Your task to perform on an android device: Open my contact list Image 0: 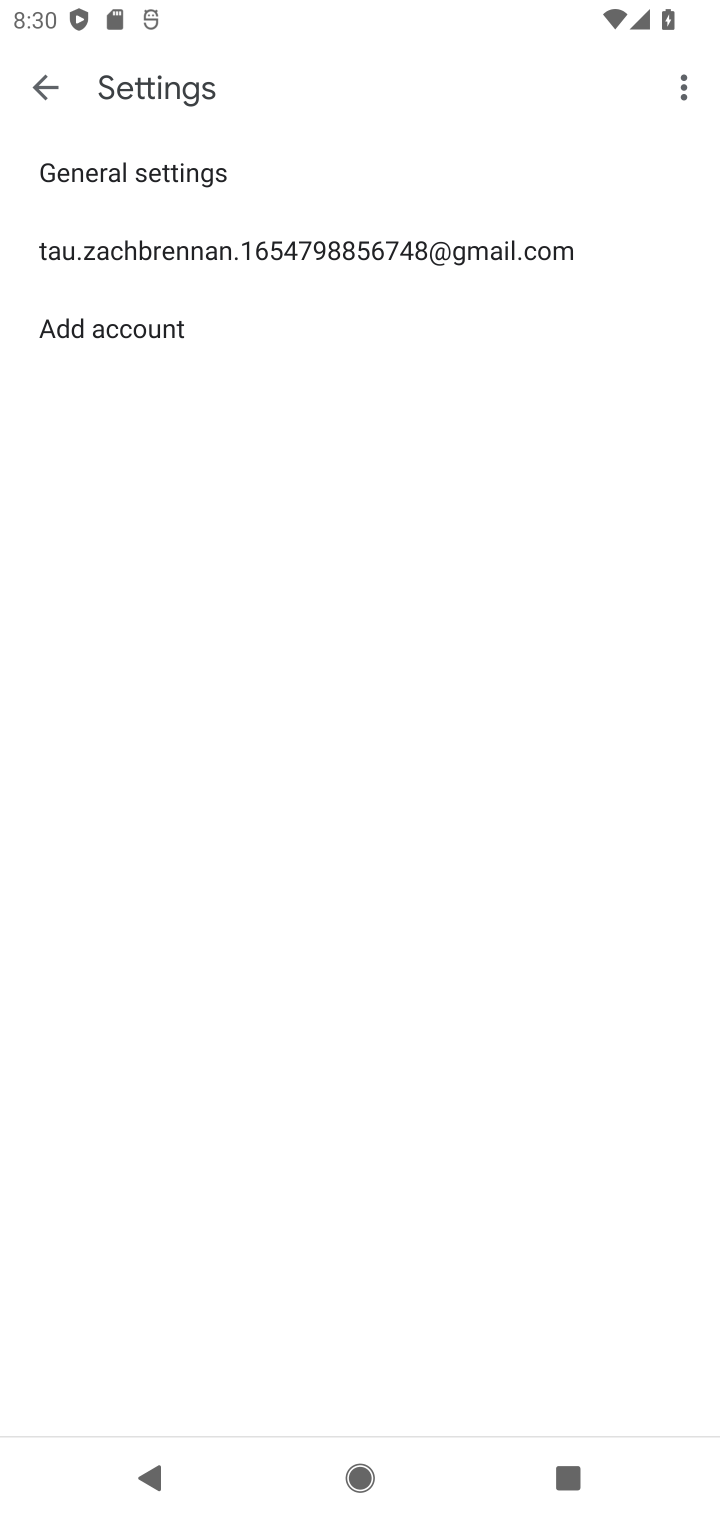
Step 0: drag from (409, 944) to (426, 479)
Your task to perform on an android device: Open my contact list Image 1: 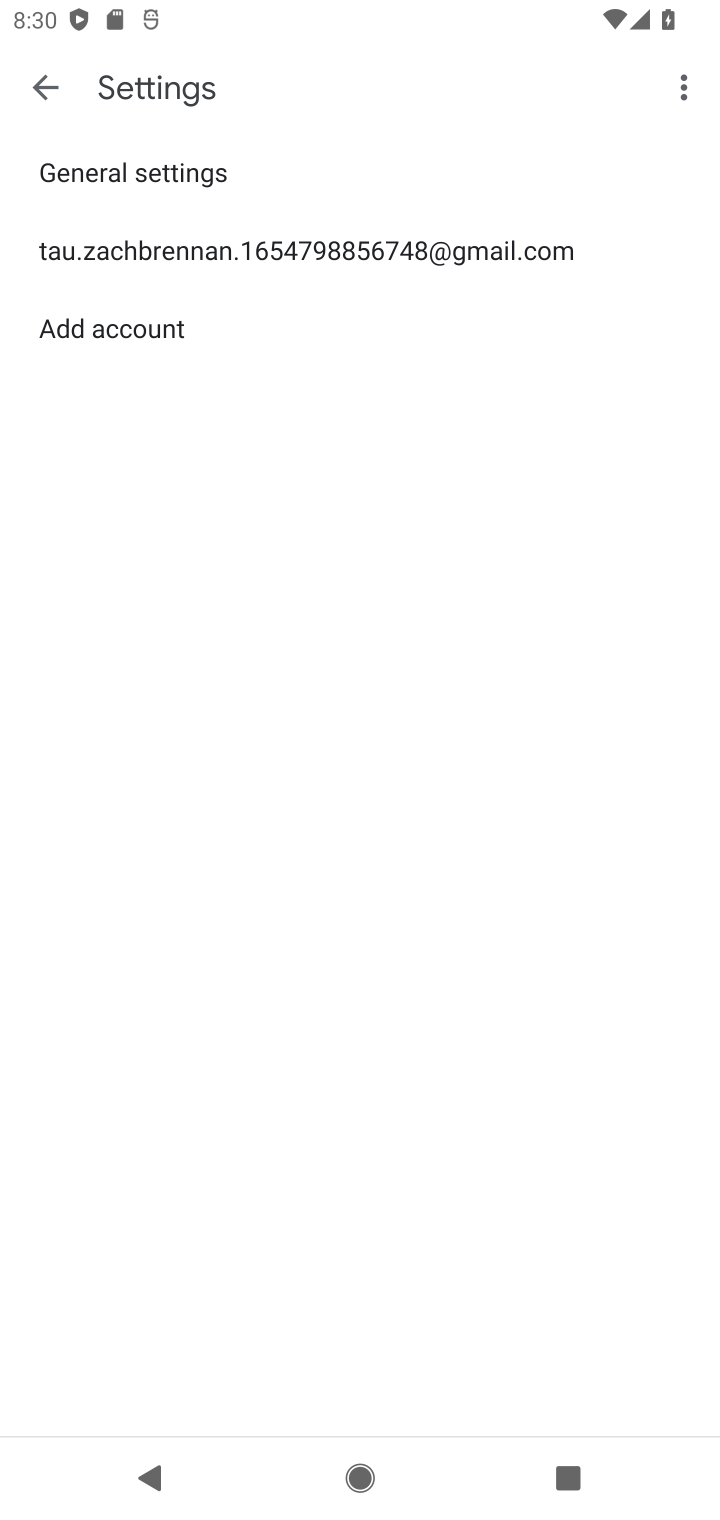
Step 1: drag from (278, 1343) to (297, 1204)
Your task to perform on an android device: Open my contact list Image 2: 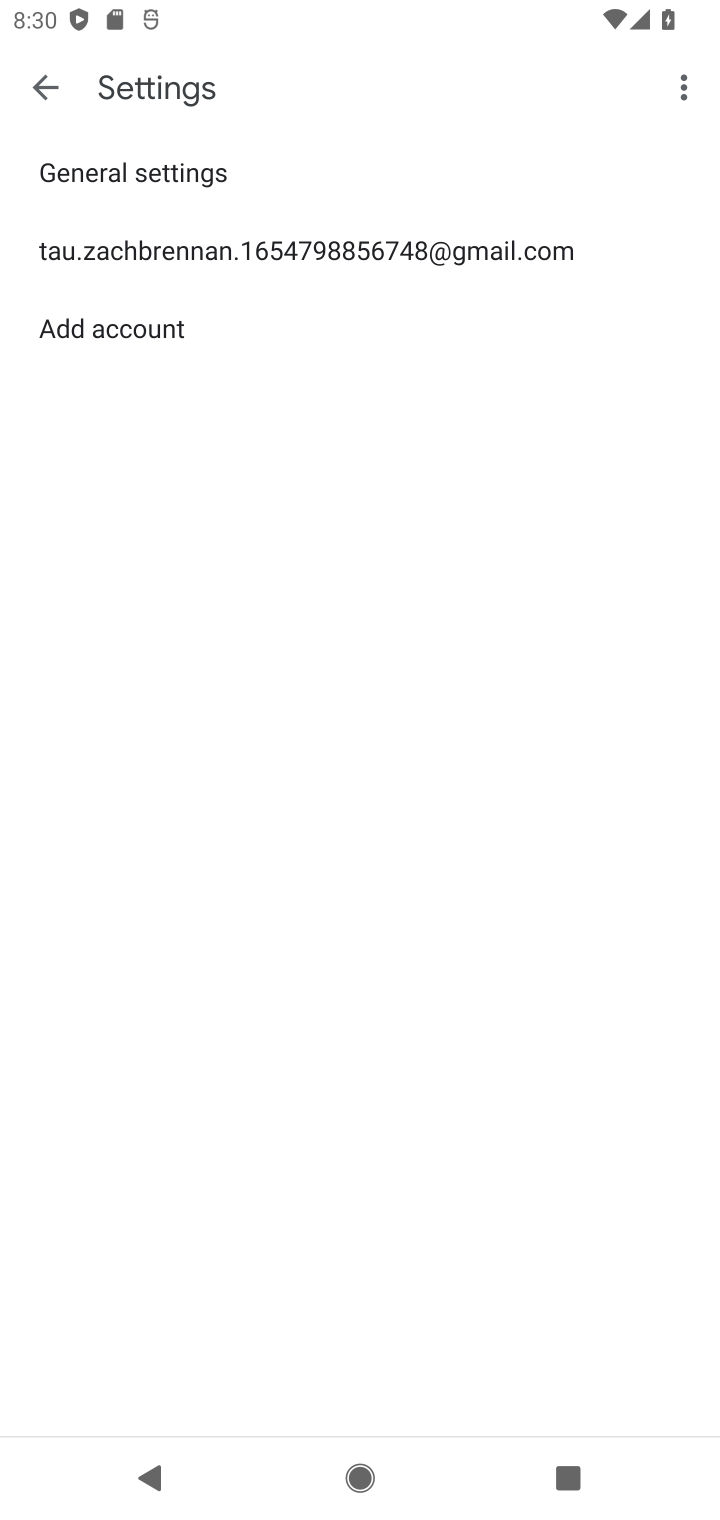
Step 2: press home button
Your task to perform on an android device: Open my contact list Image 3: 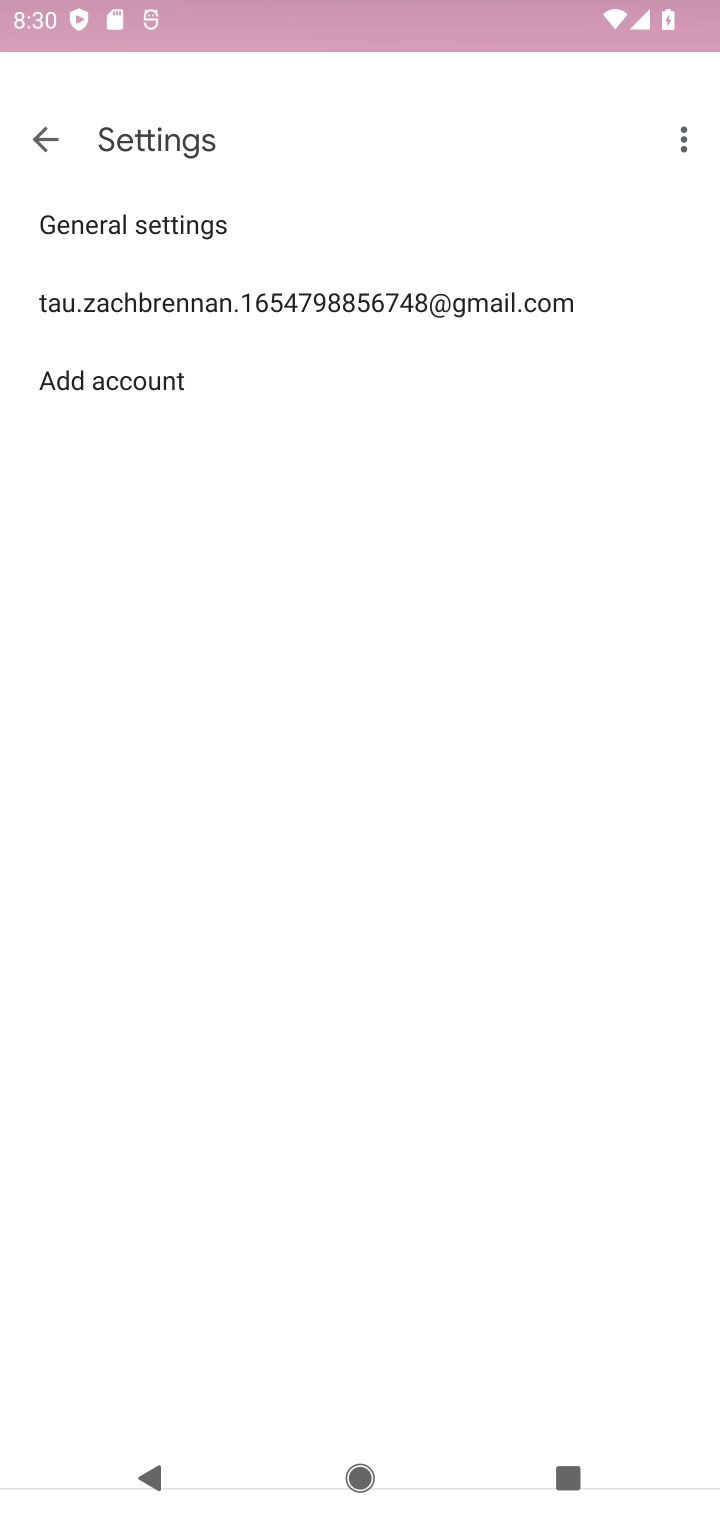
Step 3: drag from (395, 657) to (428, 358)
Your task to perform on an android device: Open my contact list Image 4: 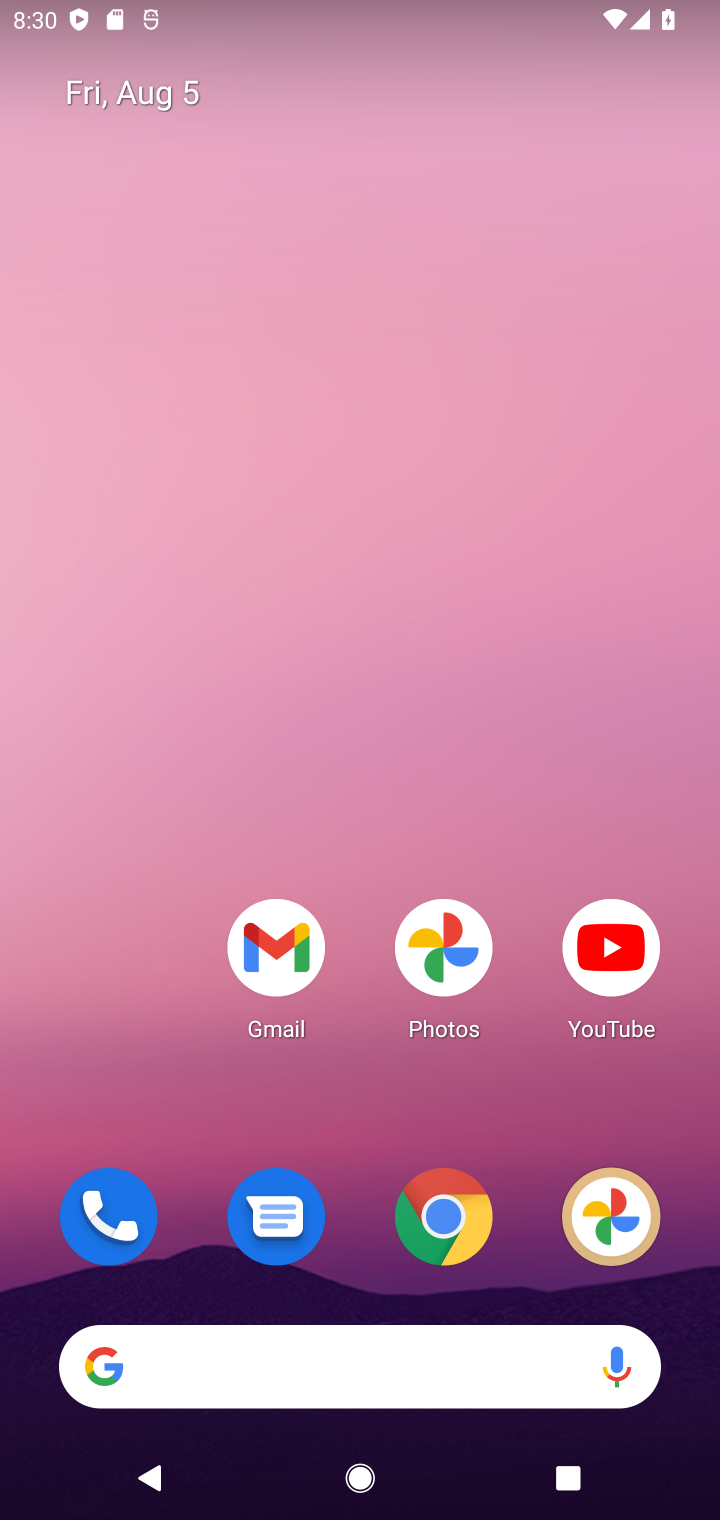
Step 4: drag from (346, 1187) to (445, 354)
Your task to perform on an android device: Open my contact list Image 5: 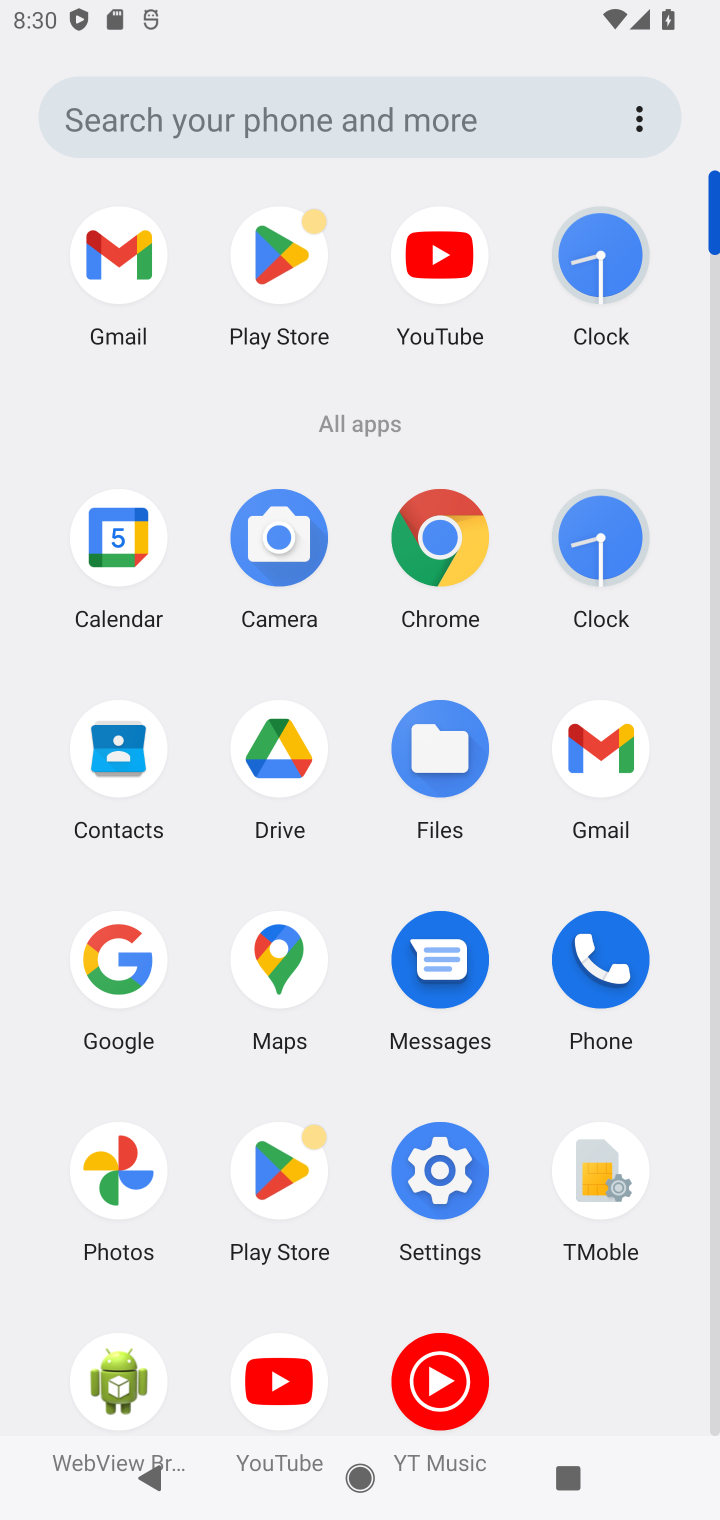
Step 5: click (128, 732)
Your task to perform on an android device: Open my contact list Image 6: 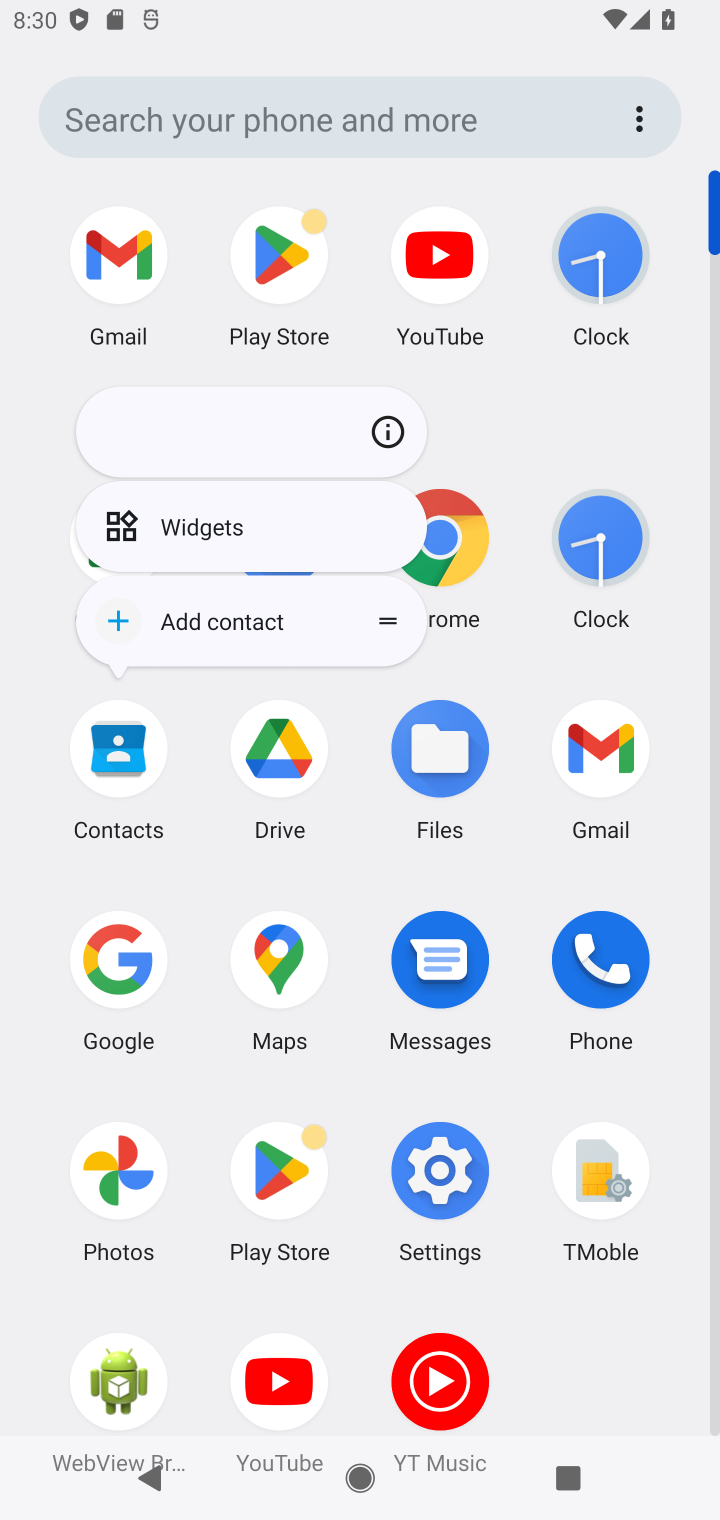
Step 6: click (405, 420)
Your task to perform on an android device: Open my contact list Image 7: 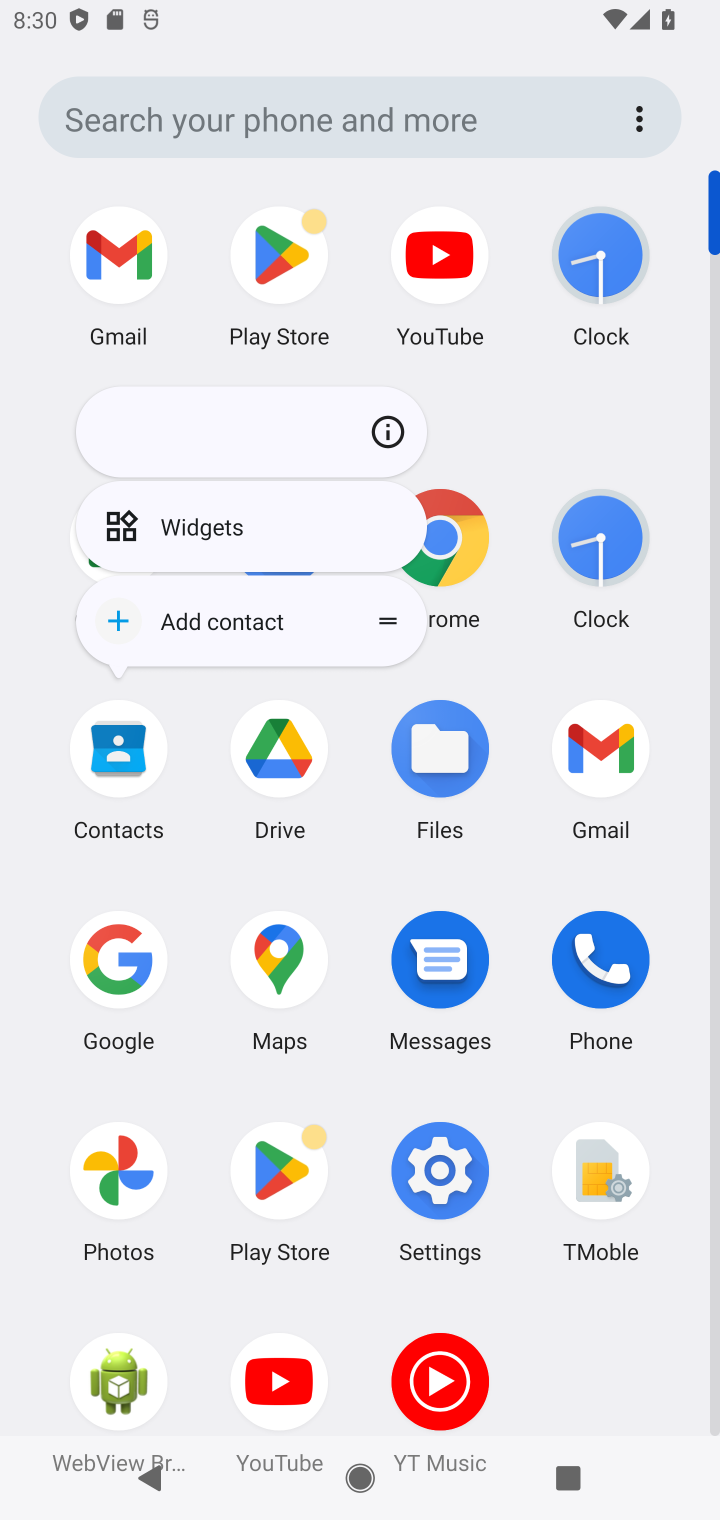
Step 7: click (376, 412)
Your task to perform on an android device: Open my contact list Image 8: 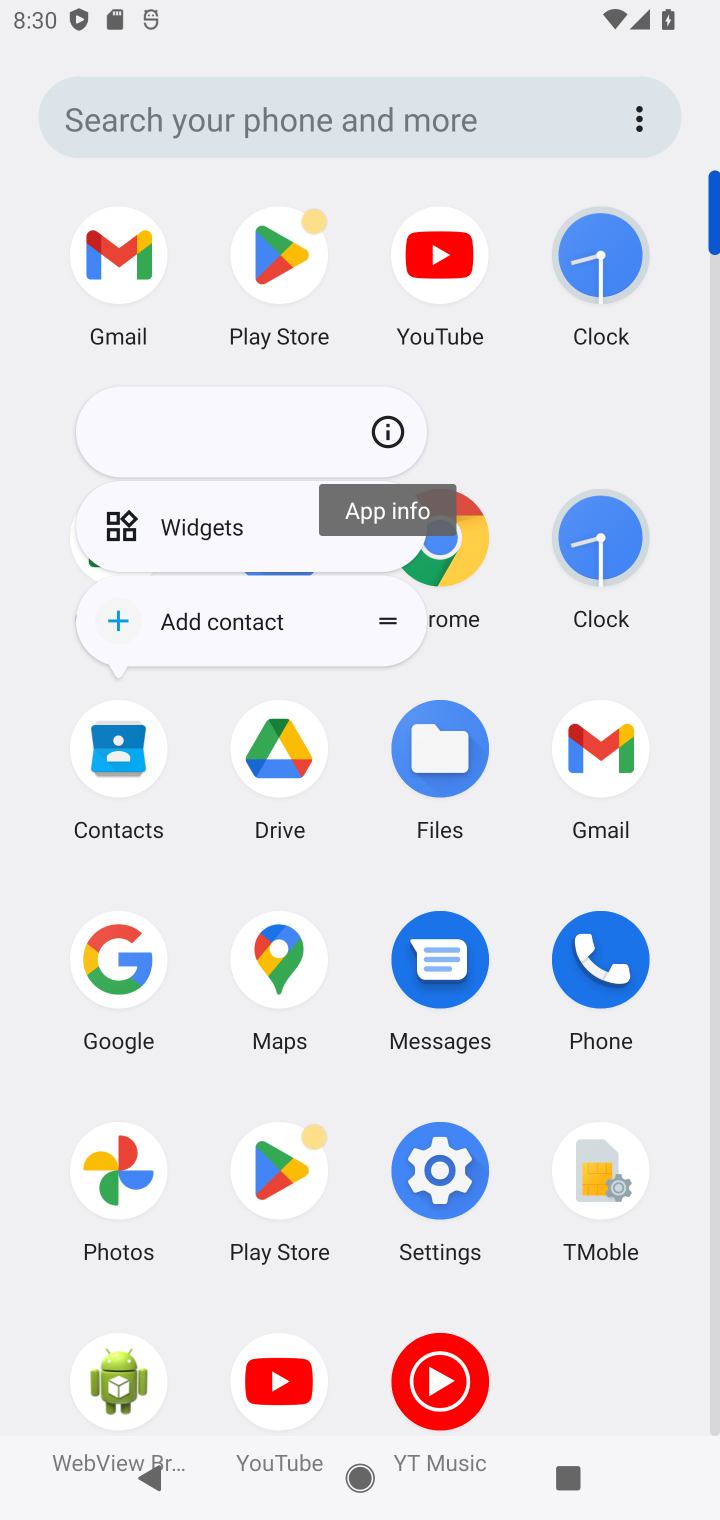
Step 8: click (376, 412)
Your task to perform on an android device: Open my contact list Image 9: 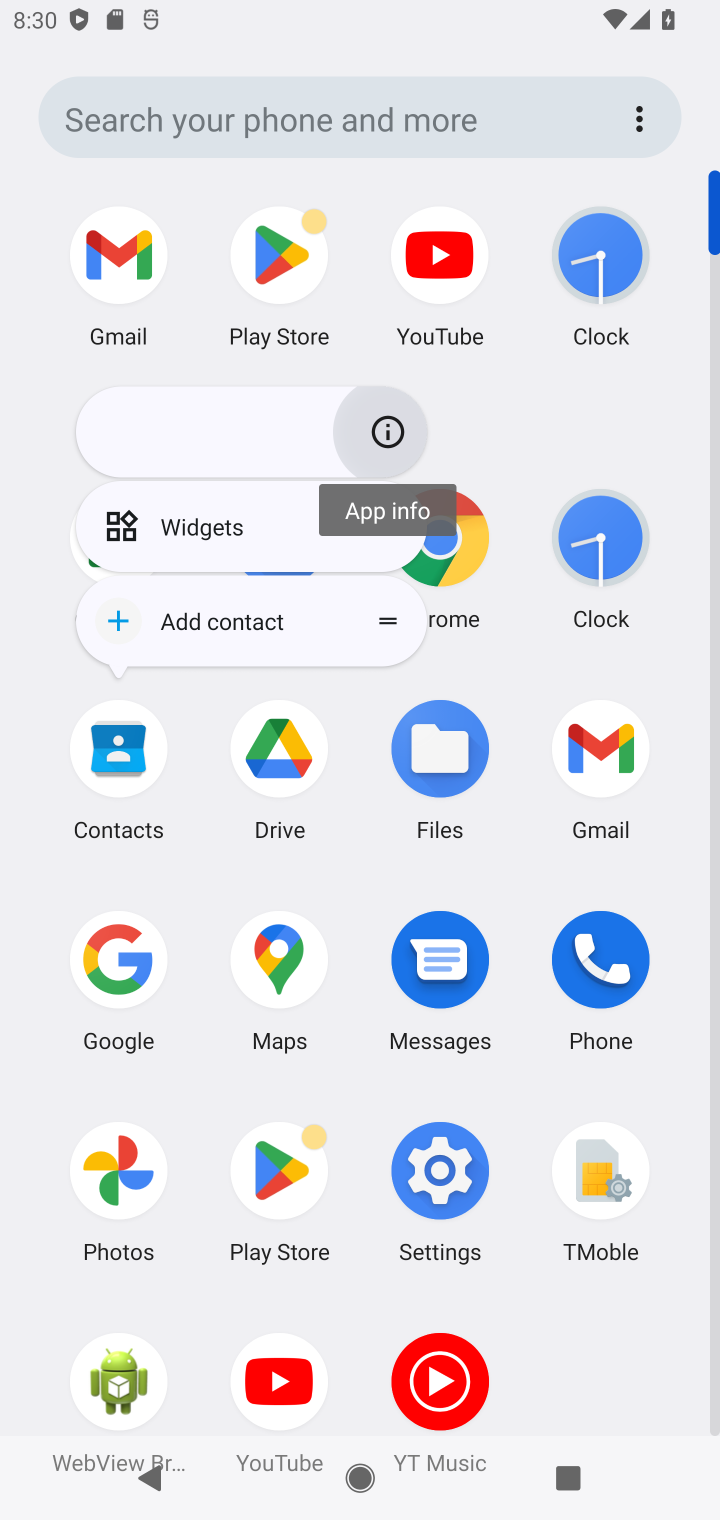
Step 9: click (376, 412)
Your task to perform on an android device: Open my contact list Image 10: 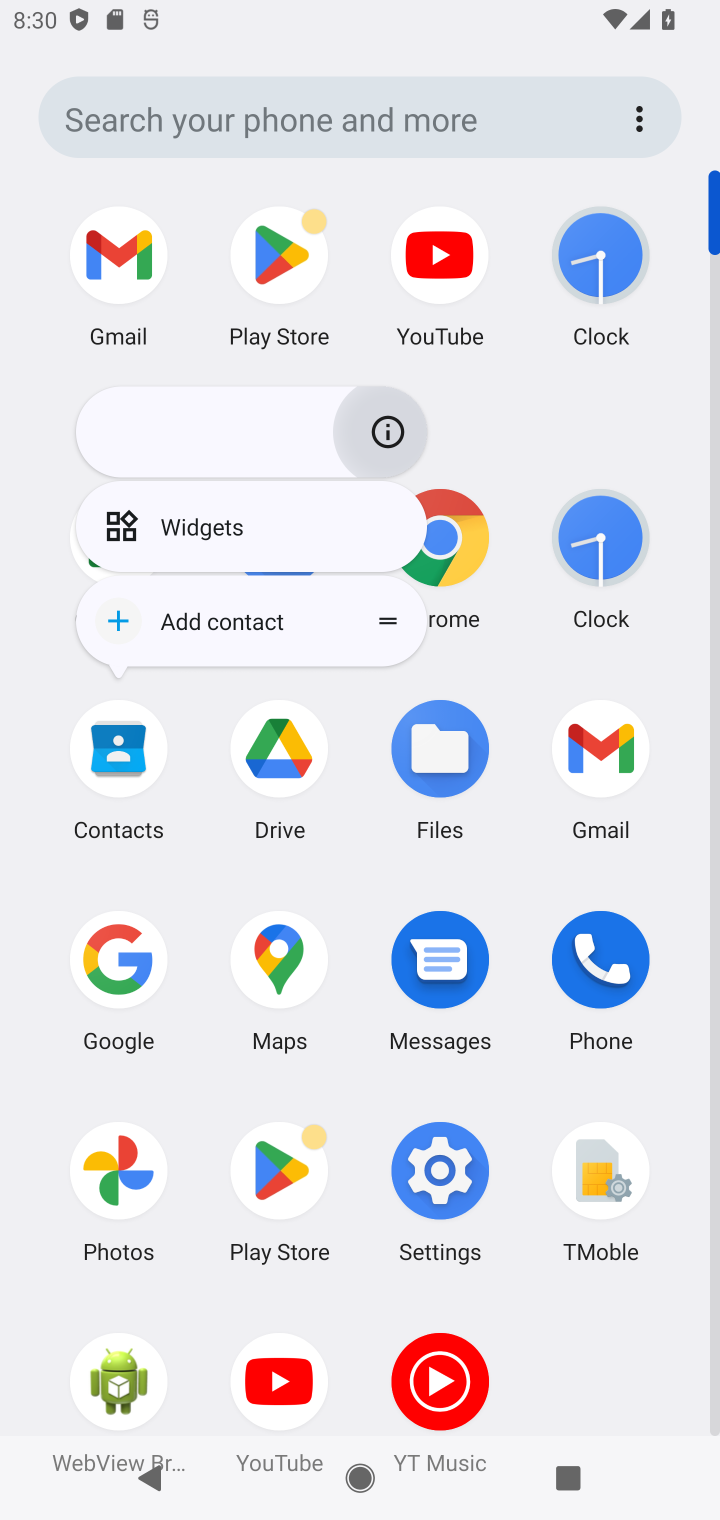
Step 10: click (372, 412)
Your task to perform on an android device: Open my contact list Image 11: 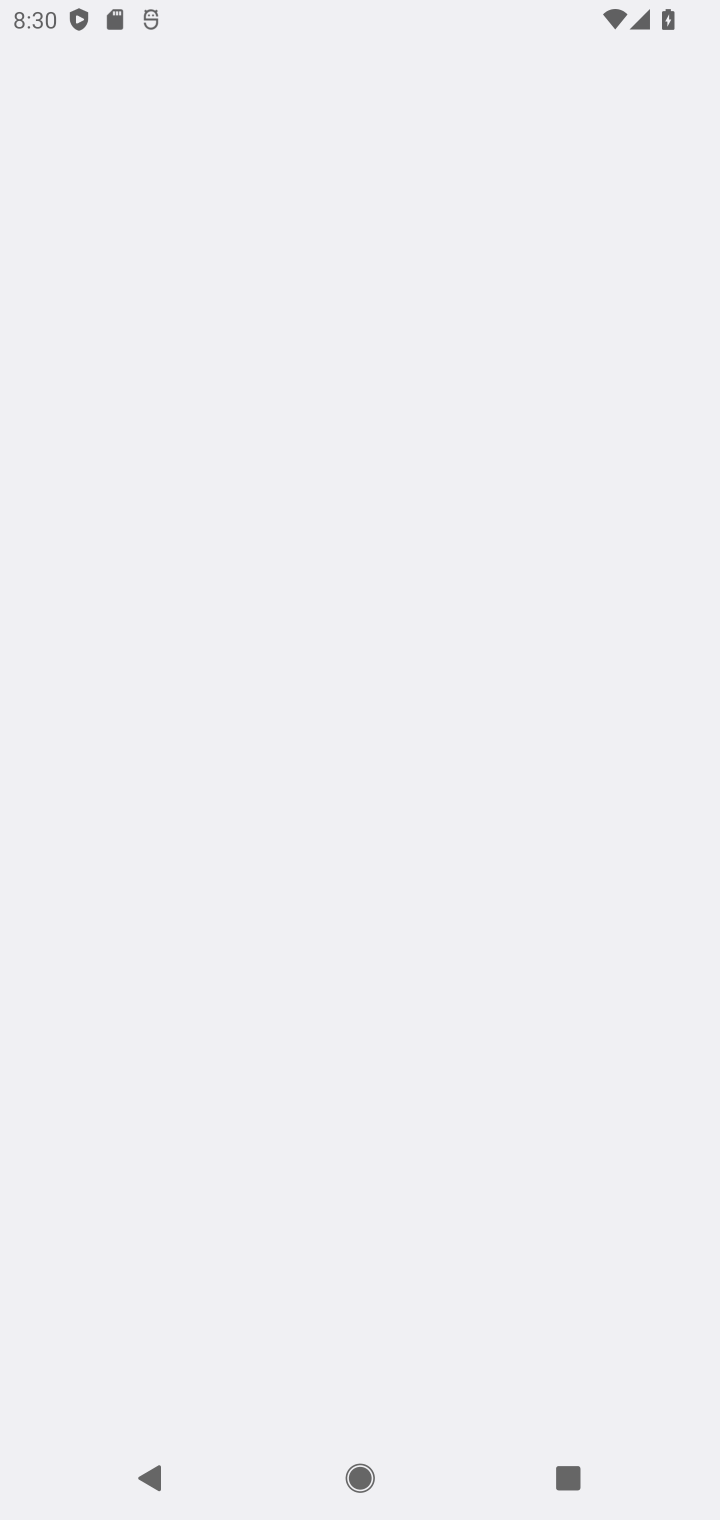
Step 11: click (393, 410)
Your task to perform on an android device: Open my contact list Image 12: 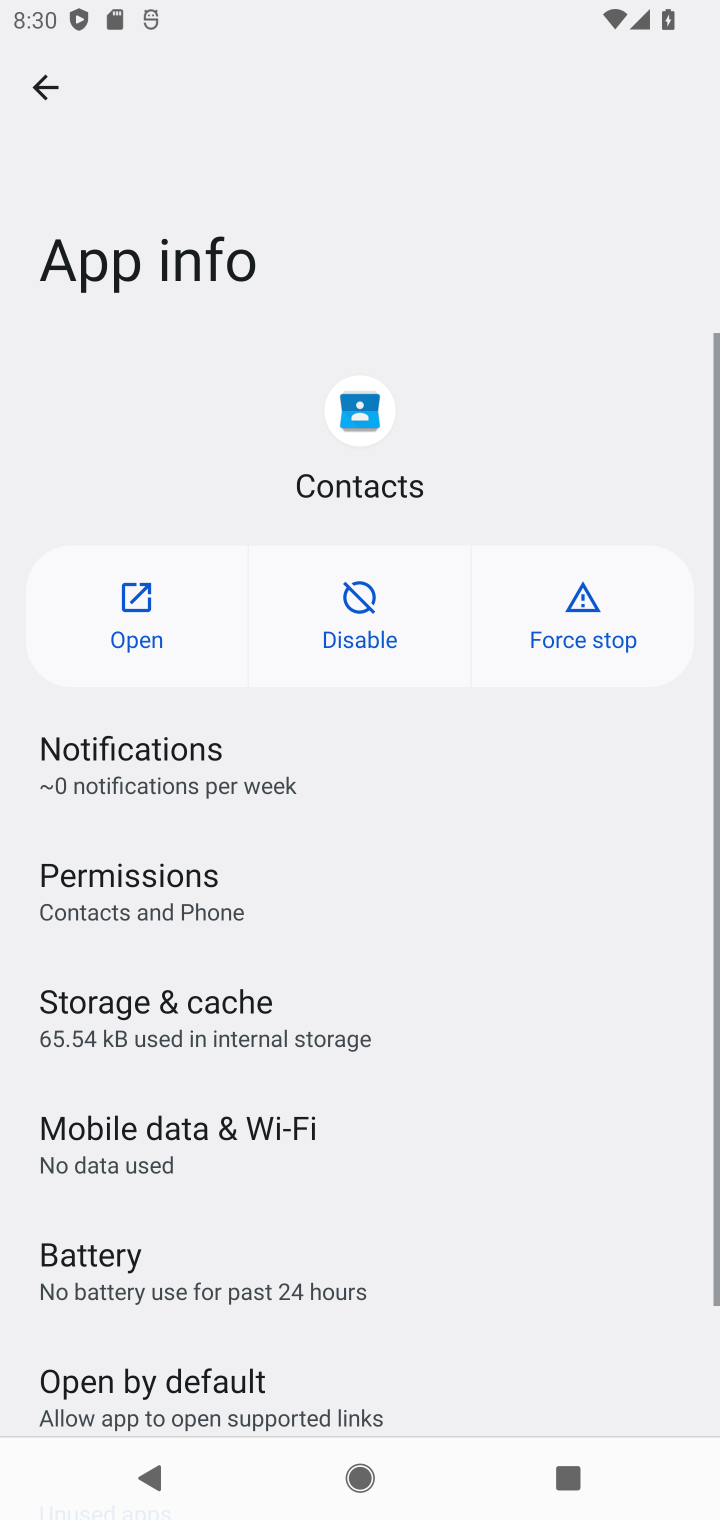
Step 12: click (142, 624)
Your task to perform on an android device: Open my contact list Image 13: 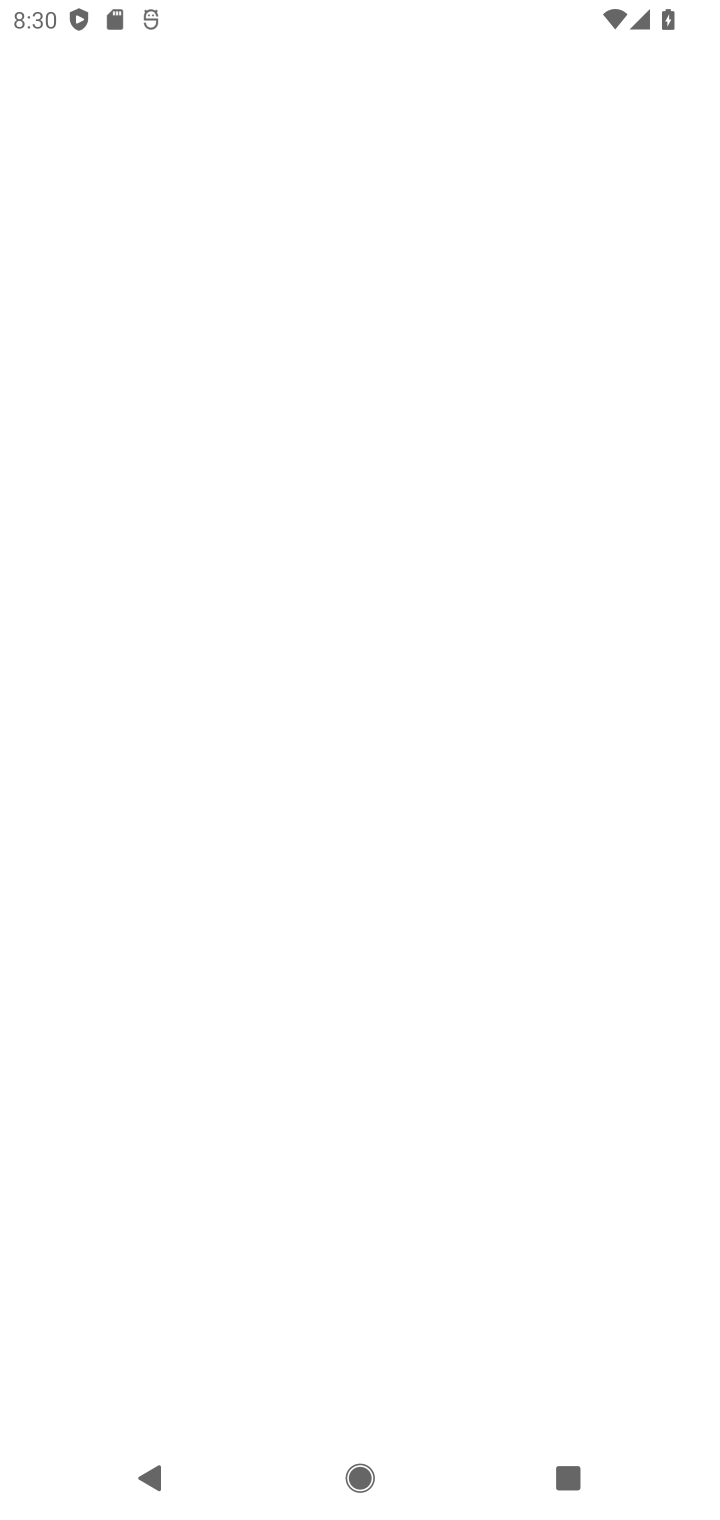
Step 13: task complete